Your task to perform on an android device: Open CNN.com Image 0: 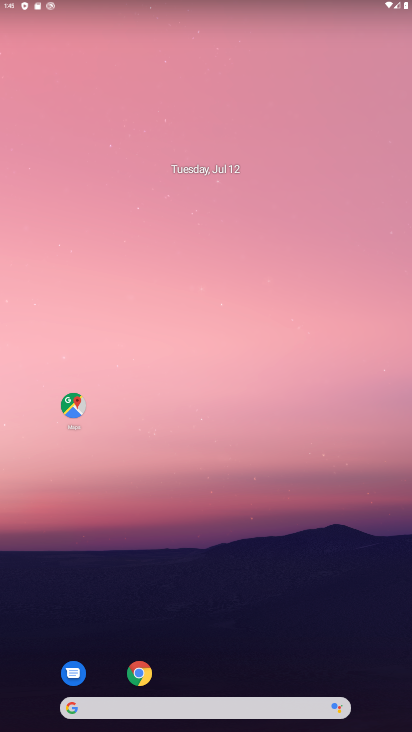
Step 0: drag from (263, 638) to (408, 2)
Your task to perform on an android device: Open CNN.com Image 1: 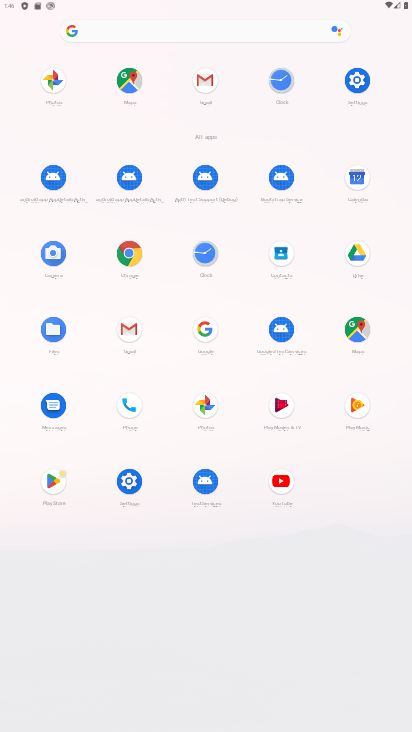
Step 1: click (131, 261)
Your task to perform on an android device: Open CNN.com Image 2: 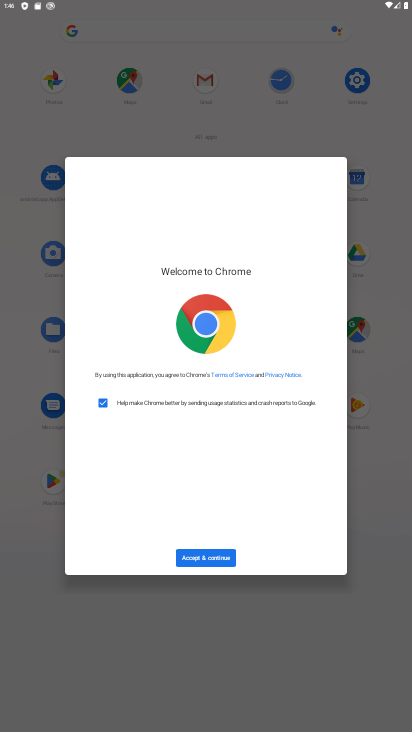
Step 2: click (194, 561)
Your task to perform on an android device: Open CNN.com Image 3: 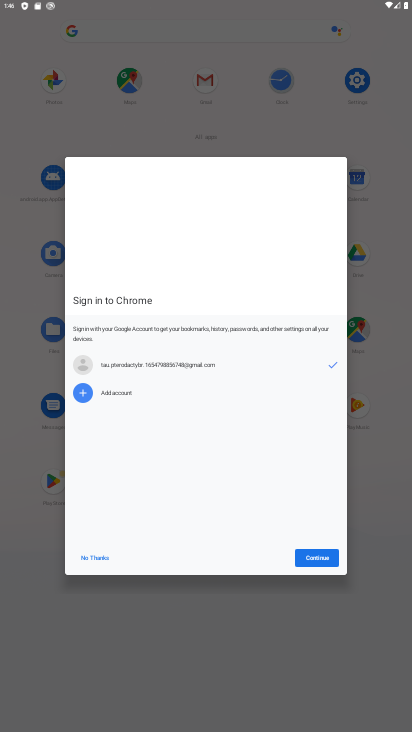
Step 3: click (311, 552)
Your task to perform on an android device: Open CNN.com Image 4: 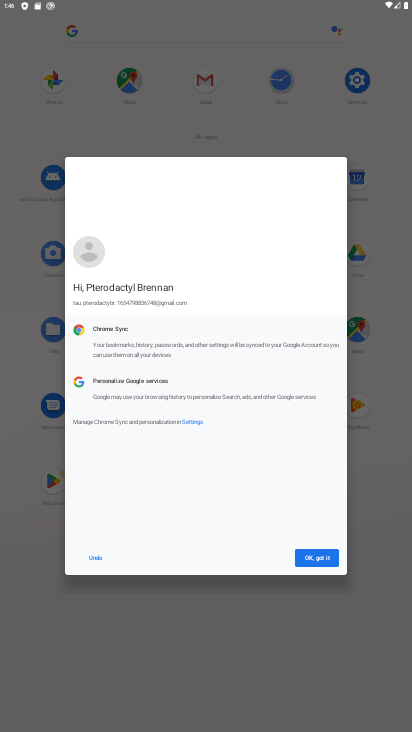
Step 4: click (329, 558)
Your task to perform on an android device: Open CNN.com Image 5: 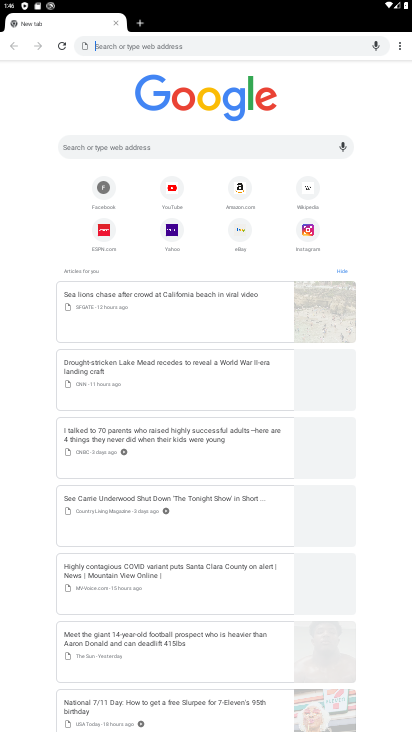
Step 5: click (226, 45)
Your task to perform on an android device: Open CNN.com Image 6: 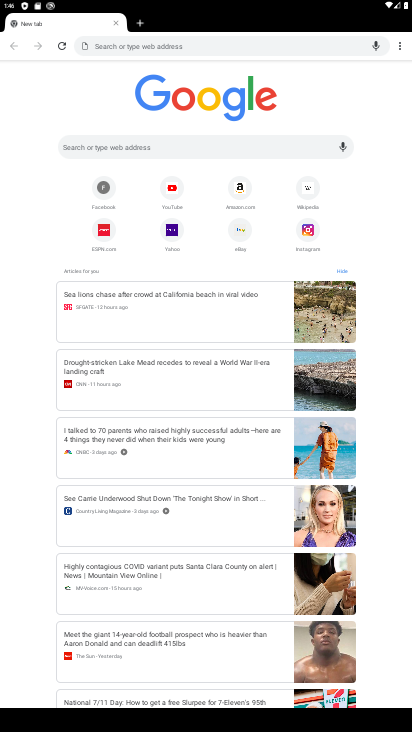
Step 6: type "CNN.com"
Your task to perform on an android device: Open CNN.com Image 7: 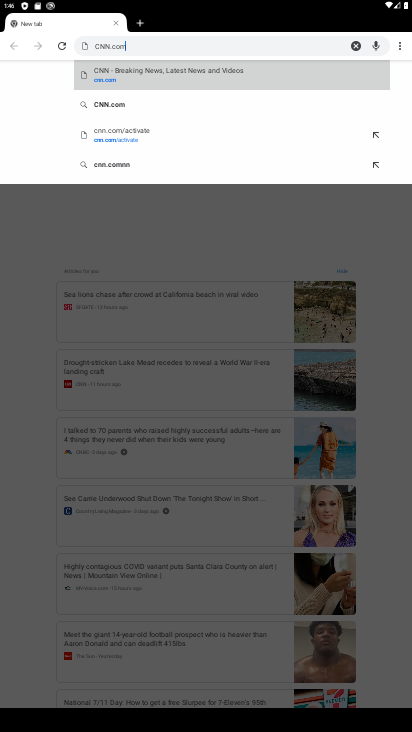
Step 7: click (111, 77)
Your task to perform on an android device: Open CNN.com Image 8: 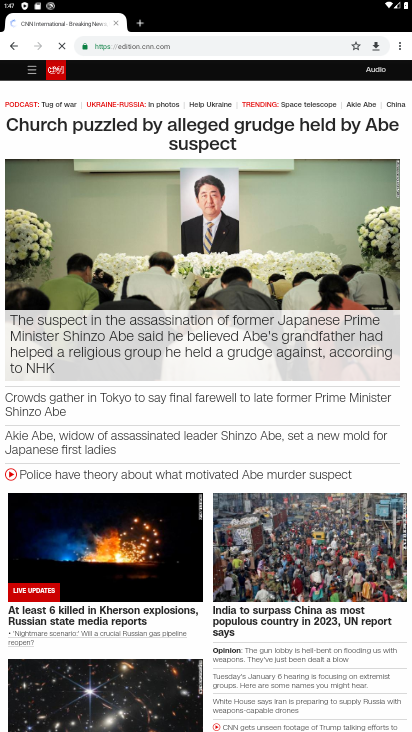
Step 8: task complete